Your task to perform on an android device: show emergency info Image 0: 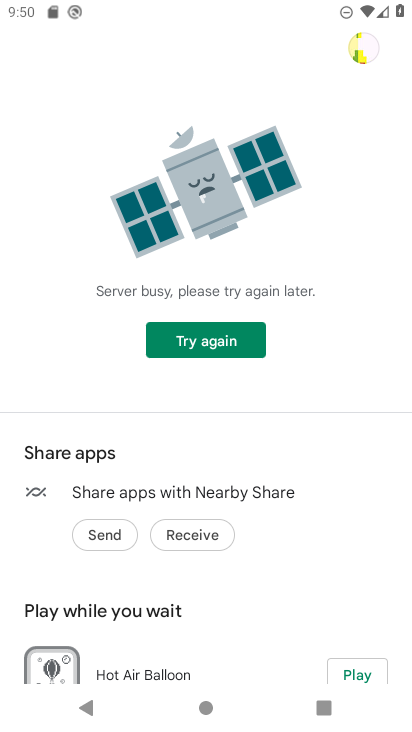
Step 0: press home button
Your task to perform on an android device: show emergency info Image 1: 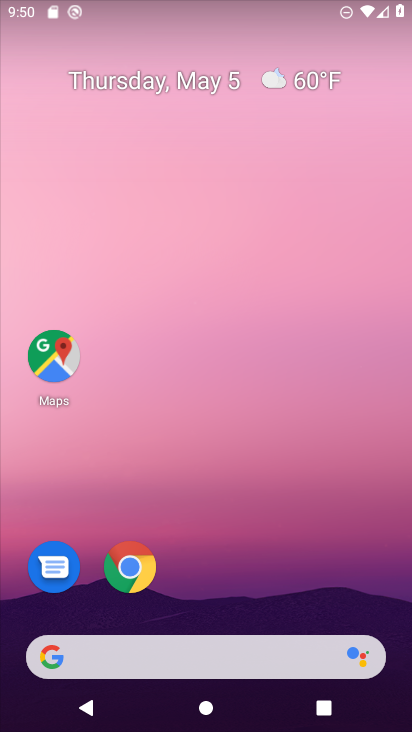
Step 1: drag from (225, 729) to (223, 48)
Your task to perform on an android device: show emergency info Image 2: 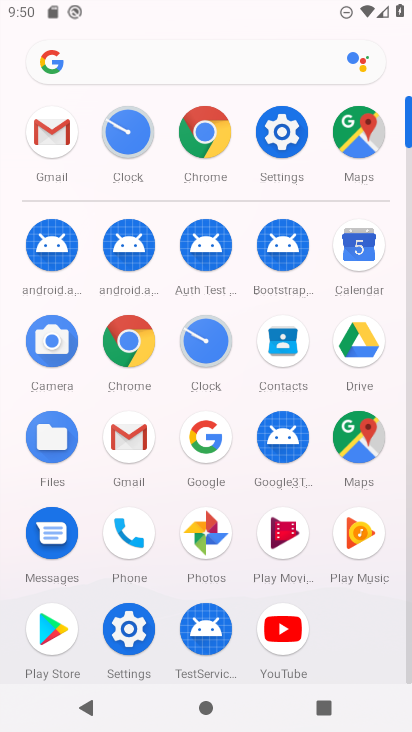
Step 2: click (278, 128)
Your task to perform on an android device: show emergency info Image 3: 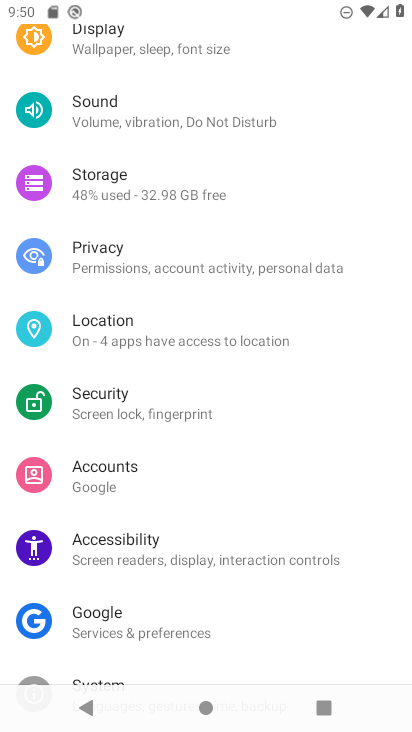
Step 3: drag from (208, 664) to (208, 170)
Your task to perform on an android device: show emergency info Image 4: 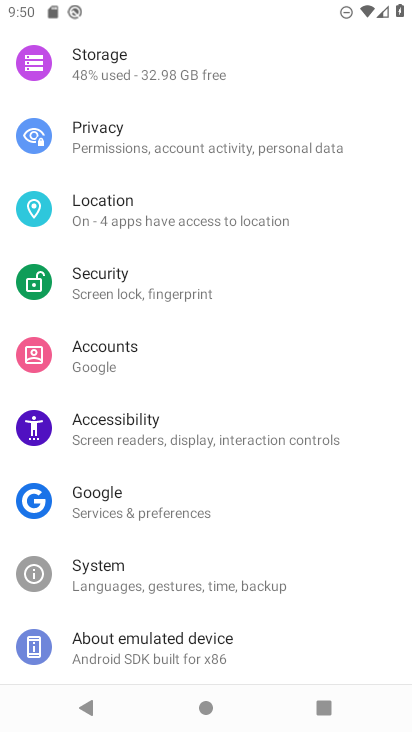
Step 4: click (146, 650)
Your task to perform on an android device: show emergency info Image 5: 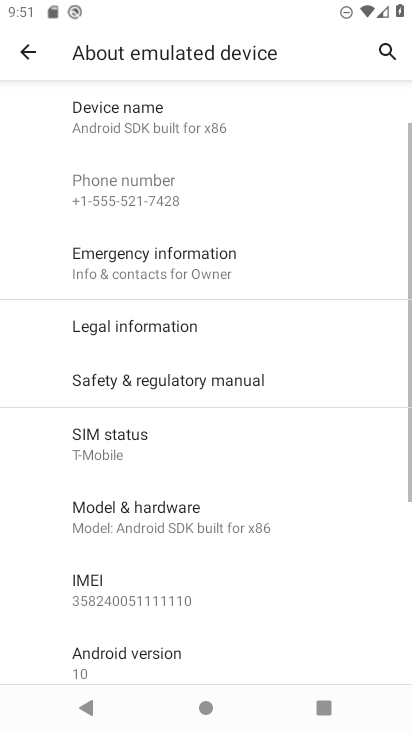
Step 5: click (159, 258)
Your task to perform on an android device: show emergency info Image 6: 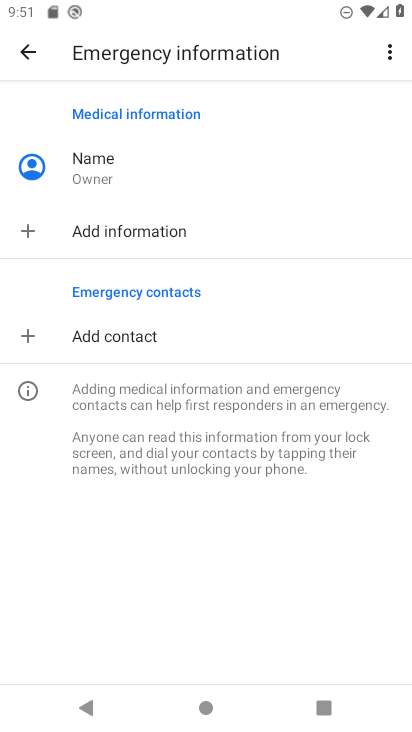
Step 6: task complete